Your task to perform on an android device: clear all cookies in the chrome app Image 0: 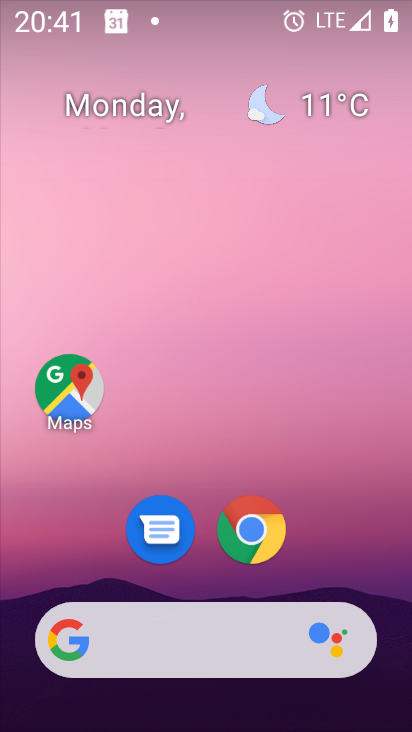
Step 0: click (233, 538)
Your task to perform on an android device: clear all cookies in the chrome app Image 1: 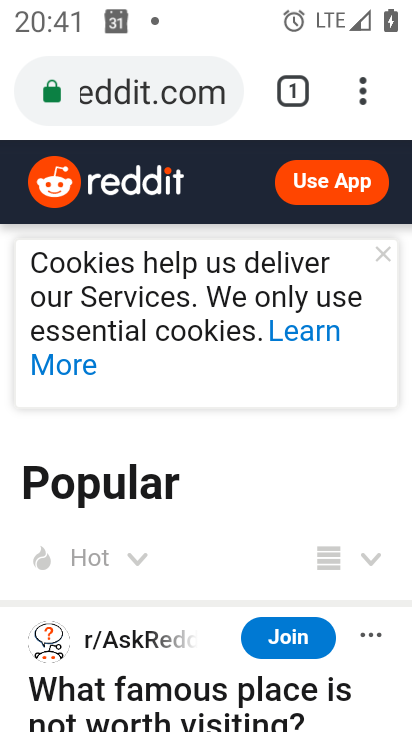
Step 1: drag from (127, 496) to (76, 121)
Your task to perform on an android device: clear all cookies in the chrome app Image 2: 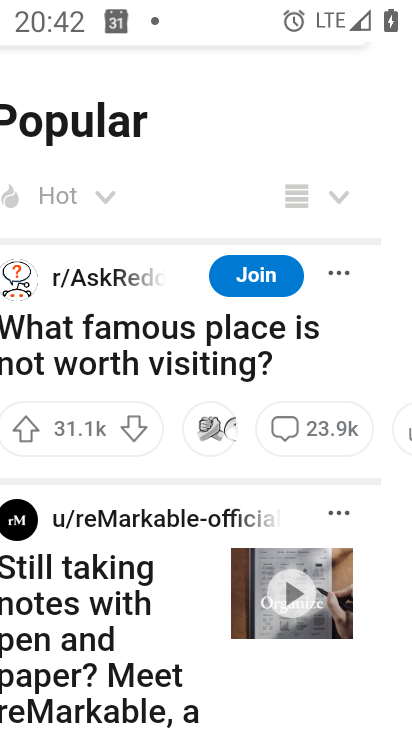
Step 2: drag from (91, 569) to (398, 58)
Your task to perform on an android device: clear all cookies in the chrome app Image 3: 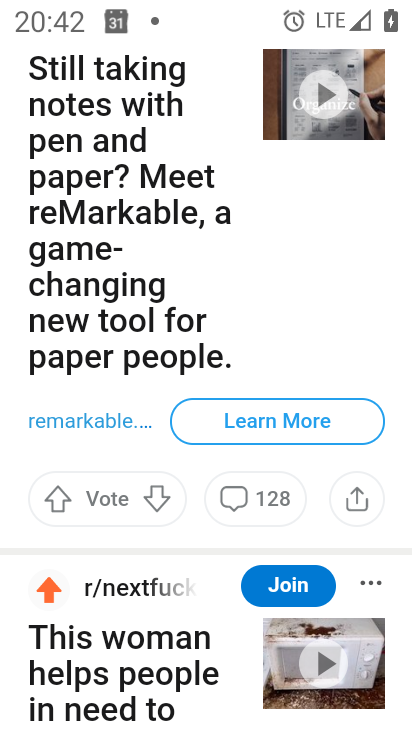
Step 3: drag from (253, 244) to (224, 692)
Your task to perform on an android device: clear all cookies in the chrome app Image 4: 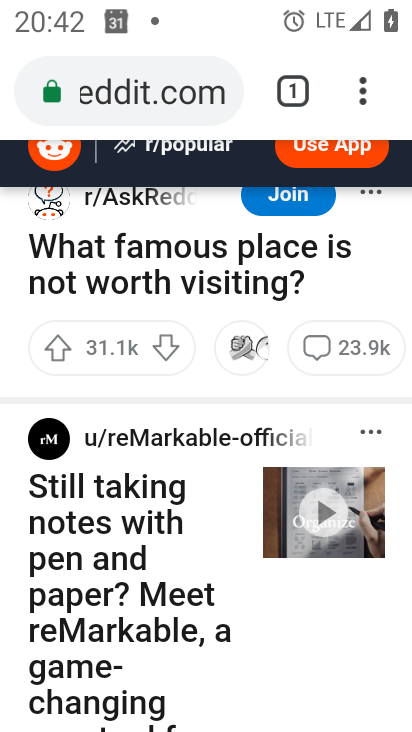
Step 4: click (370, 95)
Your task to perform on an android device: clear all cookies in the chrome app Image 5: 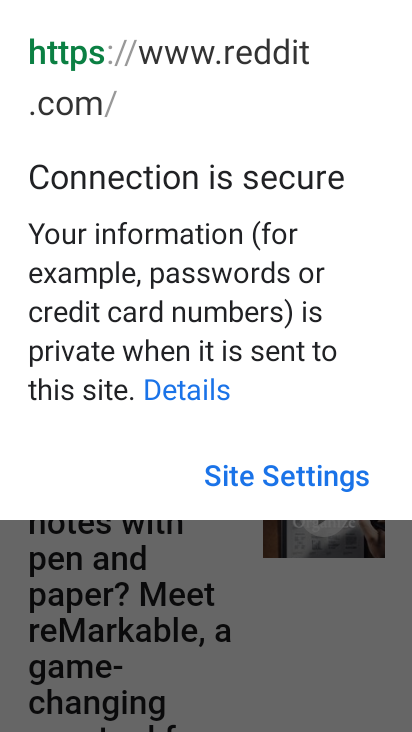
Step 5: click (142, 638)
Your task to perform on an android device: clear all cookies in the chrome app Image 6: 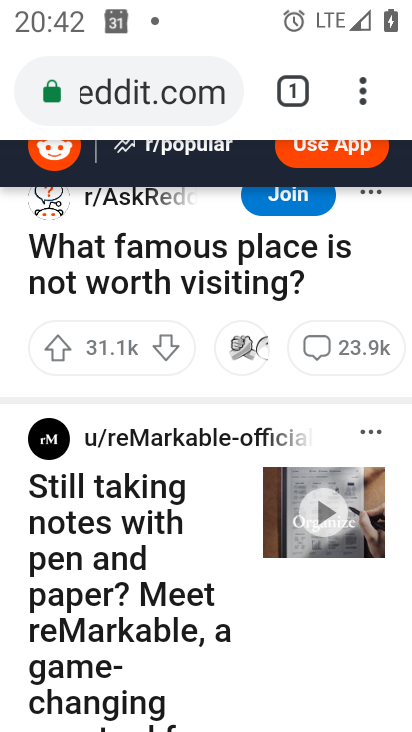
Step 6: drag from (366, 101) to (164, 507)
Your task to perform on an android device: clear all cookies in the chrome app Image 7: 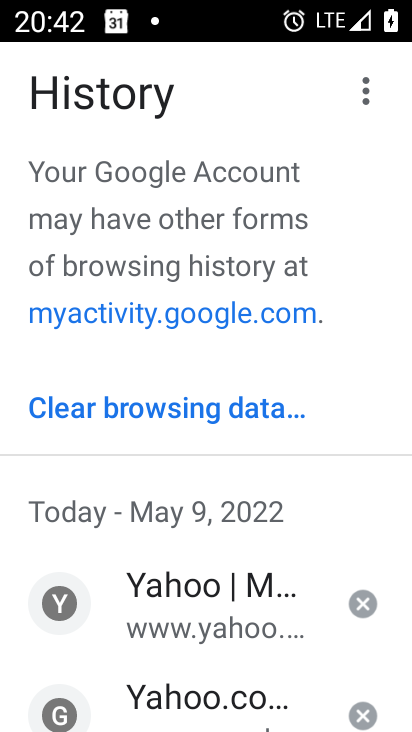
Step 7: click (175, 417)
Your task to perform on an android device: clear all cookies in the chrome app Image 8: 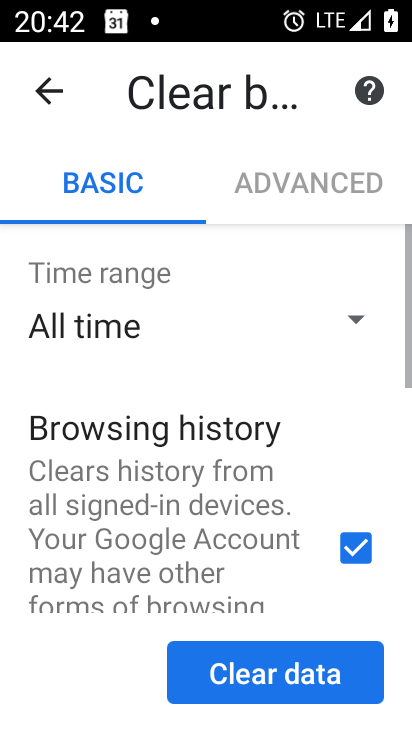
Step 8: drag from (197, 519) to (203, 98)
Your task to perform on an android device: clear all cookies in the chrome app Image 9: 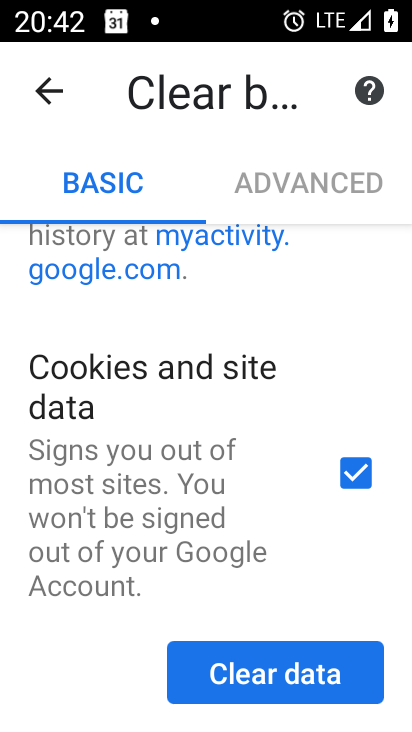
Step 9: click (356, 467)
Your task to perform on an android device: clear all cookies in the chrome app Image 10: 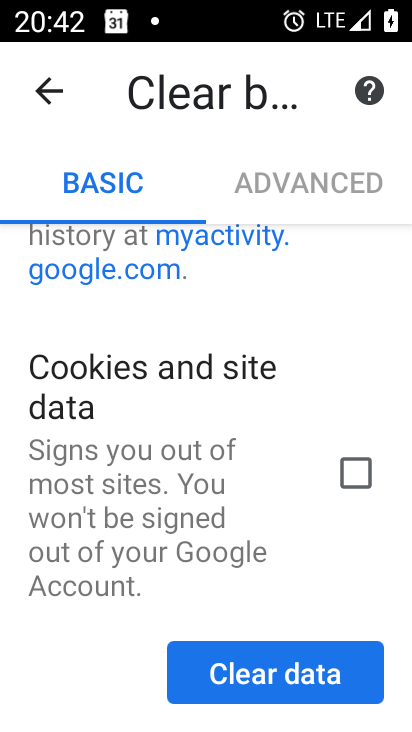
Step 10: click (360, 466)
Your task to perform on an android device: clear all cookies in the chrome app Image 11: 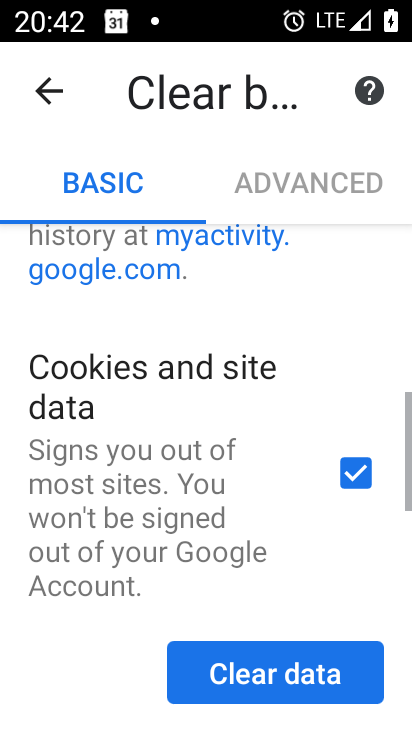
Step 11: drag from (268, 339) to (289, 496)
Your task to perform on an android device: clear all cookies in the chrome app Image 12: 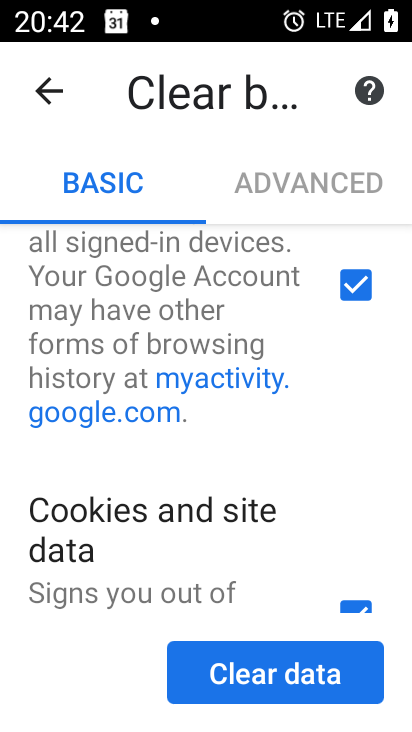
Step 12: click (333, 316)
Your task to perform on an android device: clear all cookies in the chrome app Image 13: 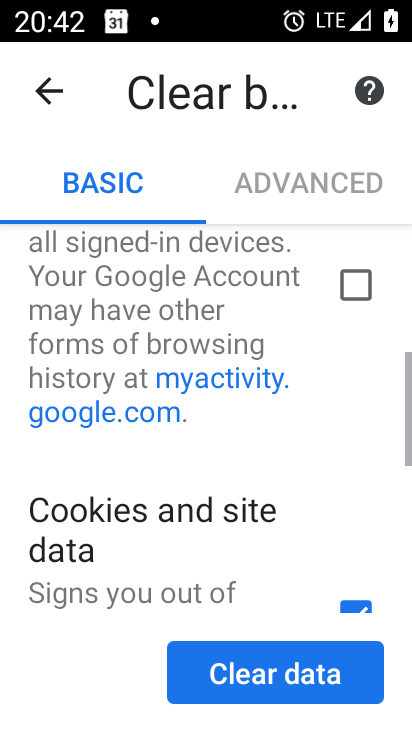
Step 13: click (260, 690)
Your task to perform on an android device: clear all cookies in the chrome app Image 14: 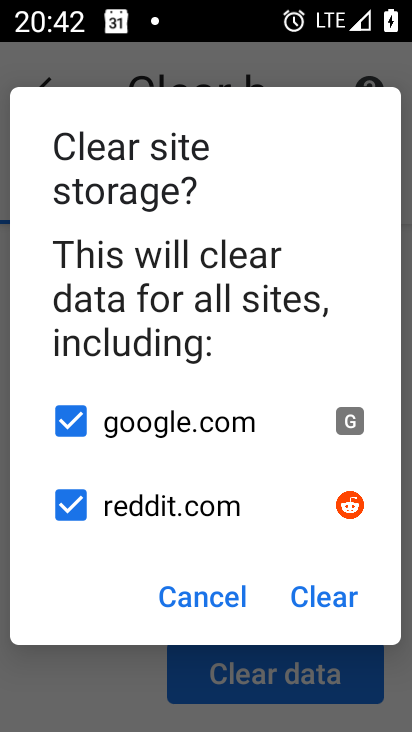
Step 14: click (309, 602)
Your task to perform on an android device: clear all cookies in the chrome app Image 15: 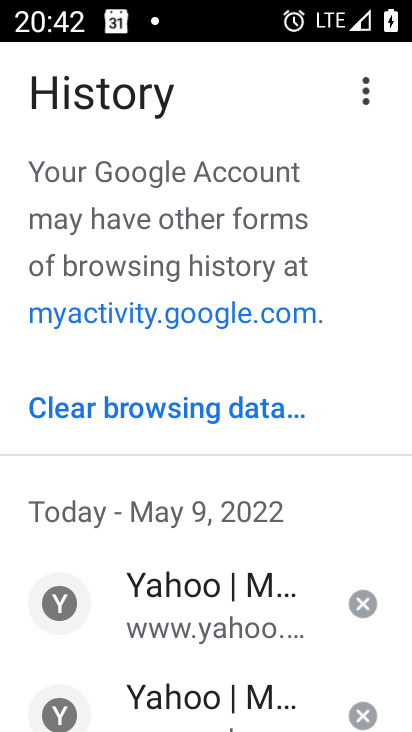
Step 15: task complete